Your task to perform on an android device: turn on improve location accuracy Image 0: 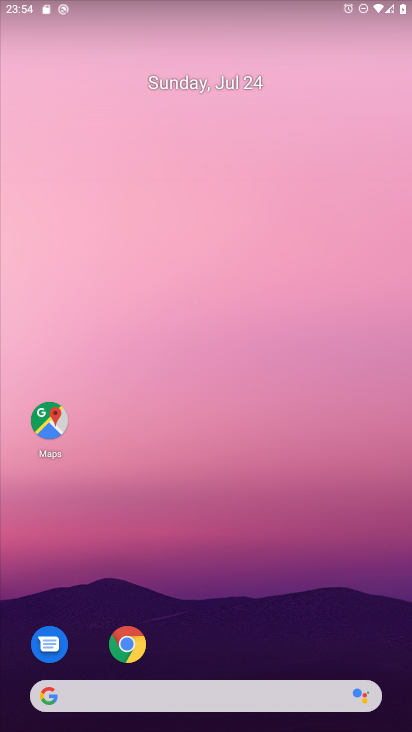
Step 0: drag from (376, 650) to (297, 21)
Your task to perform on an android device: turn on improve location accuracy Image 1: 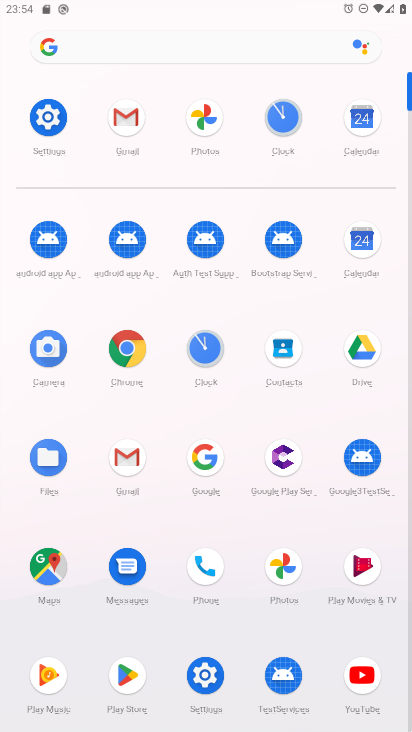
Step 1: click (202, 675)
Your task to perform on an android device: turn on improve location accuracy Image 2: 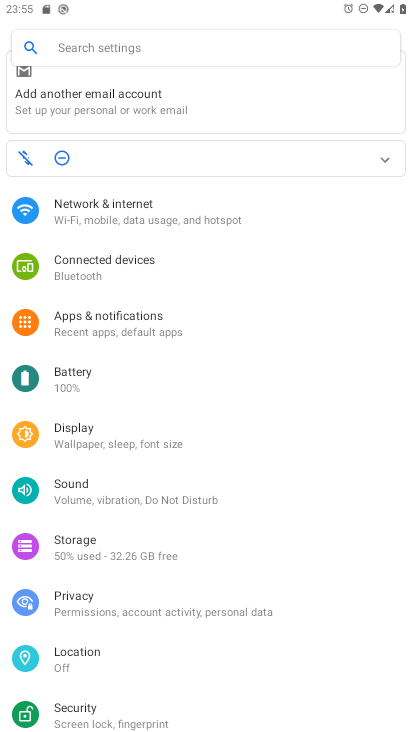
Step 2: click (70, 646)
Your task to perform on an android device: turn on improve location accuracy Image 3: 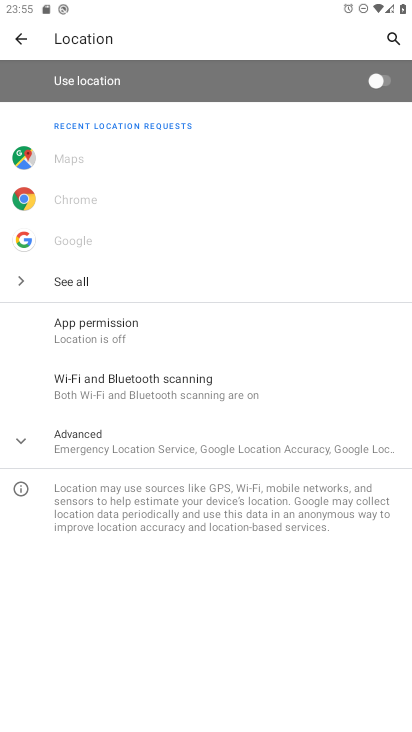
Step 3: click (27, 437)
Your task to perform on an android device: turn on improve location accuracy Image 4: 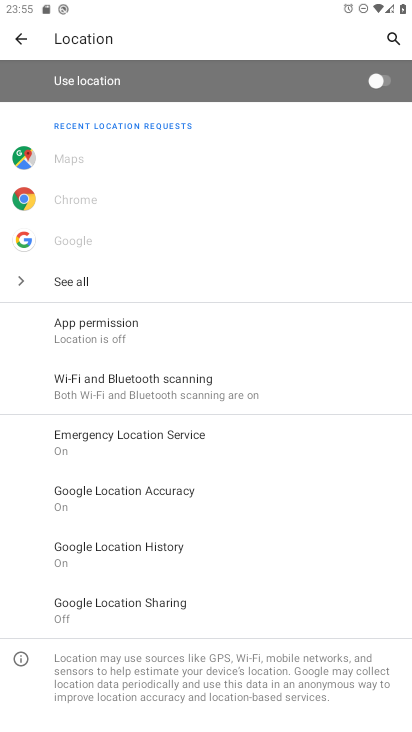
Step 4: click (114, 491)
Your task to perform on an android device: turn on improve location accuracy Image 5: 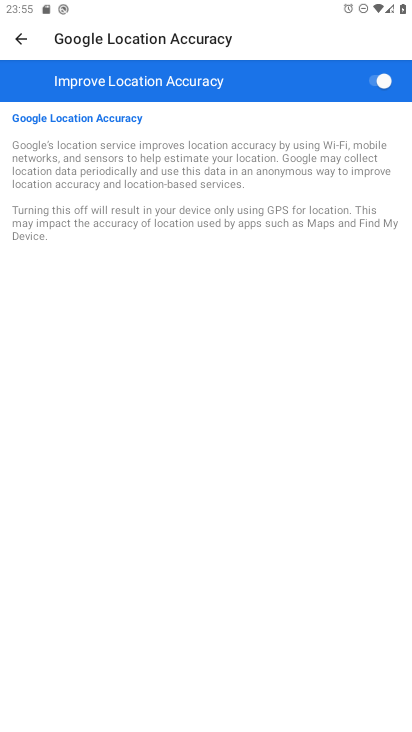
Step 5: task complete